Your task to perform on an android device: snooze an email in the gmail app Image 0: 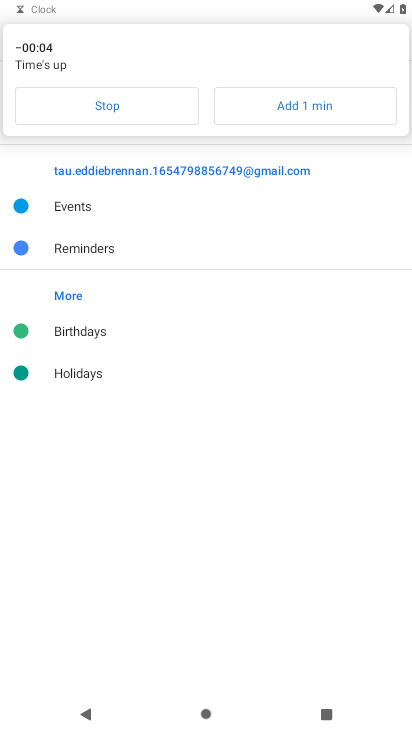
Step 0: press home button
Your task to perform on an android device: snooze an email in the gmail app Image 1: 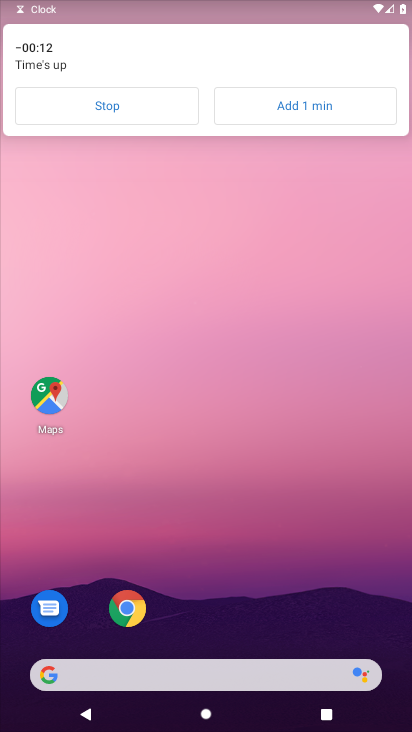
Step 1: drag from (240, 637) to (221, 156)
Your task to perform on an android device: snooze an email in the gmail app Image 2: 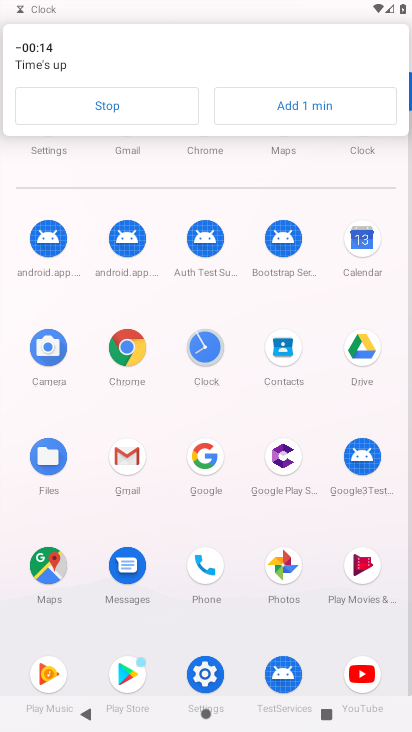
Step 2: click (91, 121)
Your task to perform on an android device: snooze an email in the gmail app Image 3: 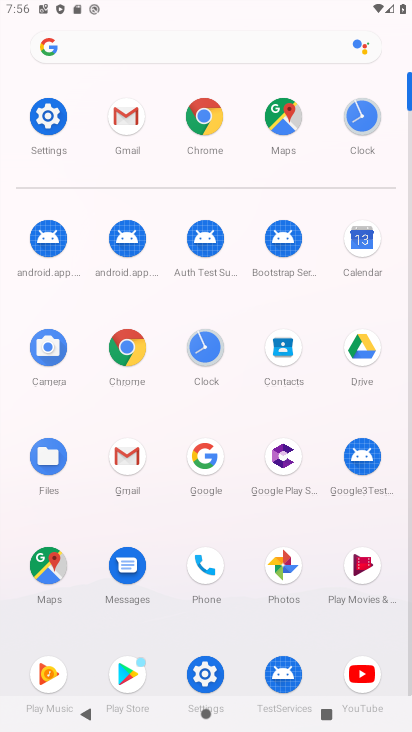
Step 3: click (126, 457)
Your task to perform on an android device: snooze an email in the gmail app Image 4: 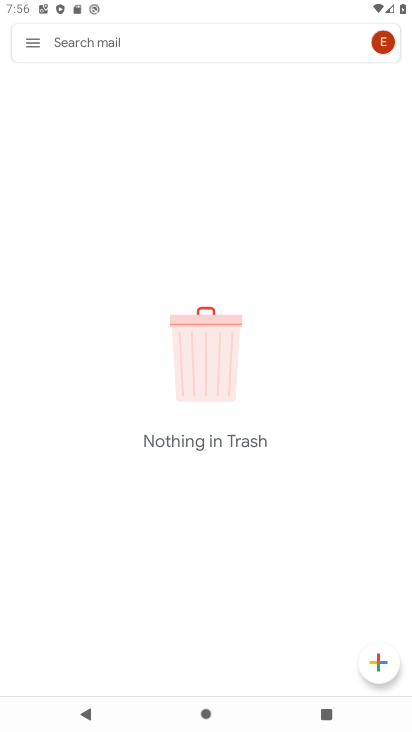
Step 4: click (28, 41)
Your task to perform on an android device: snooze an email in the gmail app Image 5: 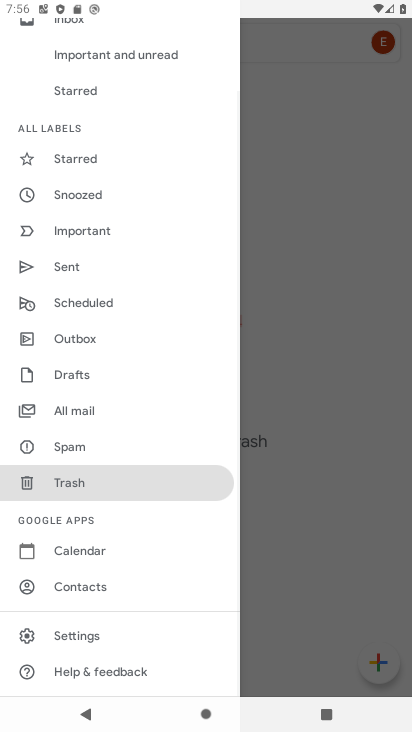
Step 5: drag from (77, 51) to (85, 326)
Your task to perform on an android device: snooze an email in the gmail app Image 6: 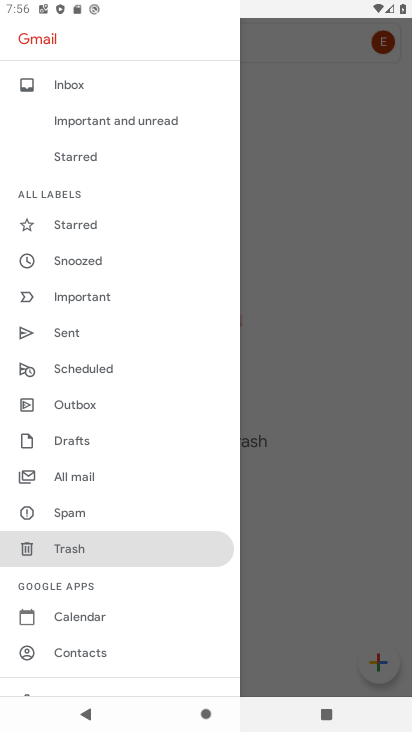
Step 6: click (64, 97)
Your task to perform on an android device: snooze an email in the gmail app Image 7: 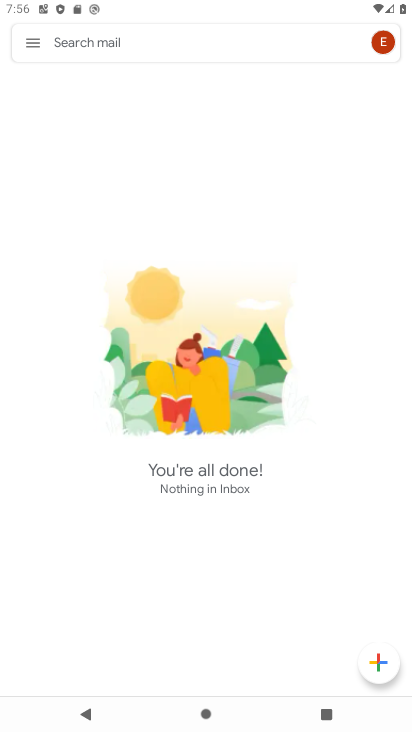
Step 7: task complete